Your task to perform on an android device: turn off javascript in the chrome app Image 0: 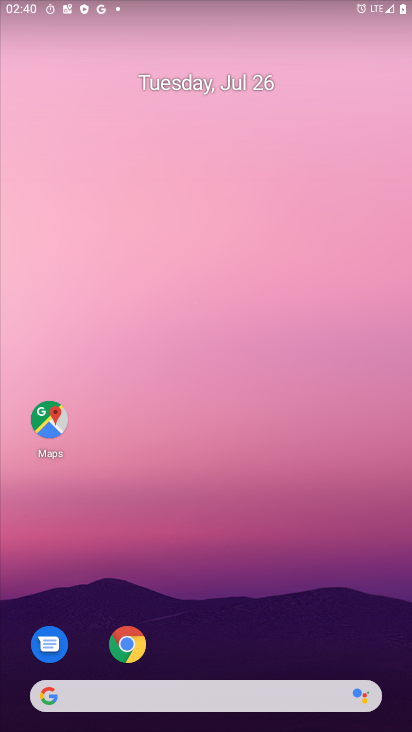
Step 0: click (125, 646)
Your task to perform on an android device: turn off javascript in the chrome app Image 1: 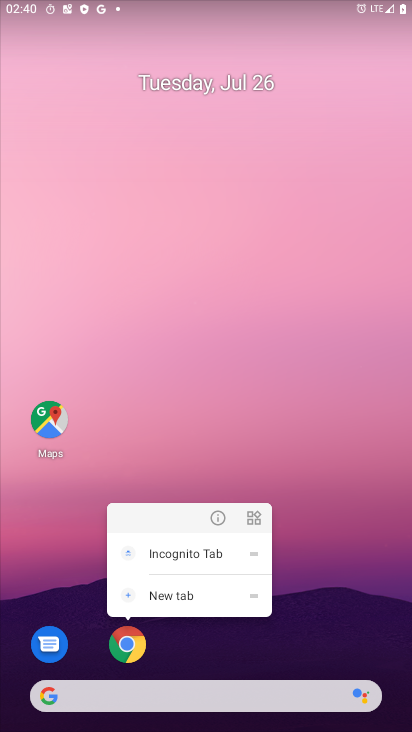
Step 1: click (125, 646)
Your task to perform on an android device: turn off javascript in the chrome app Image 2: 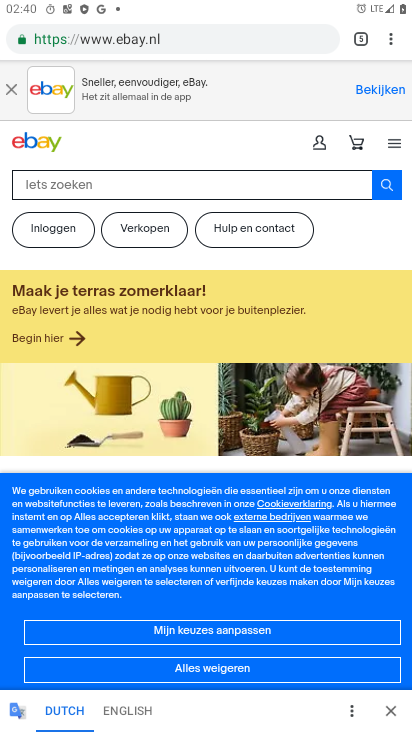
Step 2: click (390, 38)
Your task to perform on an android device: turn off javascript in the chrome app Image 3: 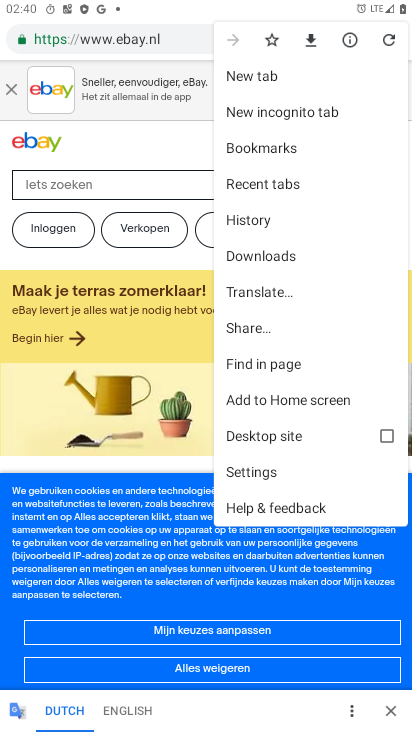
Step 3: click (261, 472)
Your task to perform on an android device: turn off javascript in the chrome app Image 4: 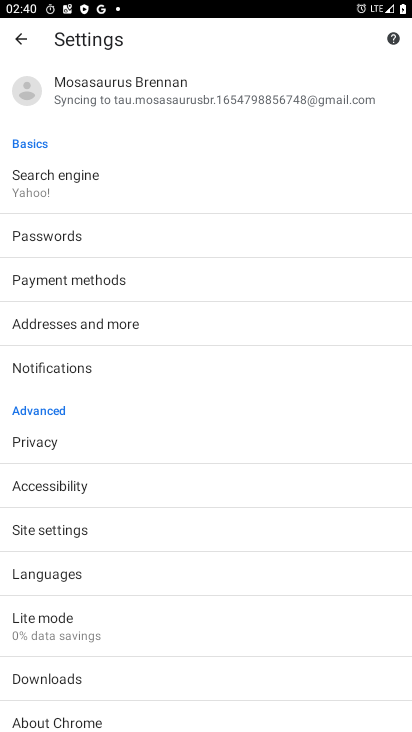
Step 4: click (61, 532)
Your task to perform on an android device: turn off javascript in the chrome app Image 5: 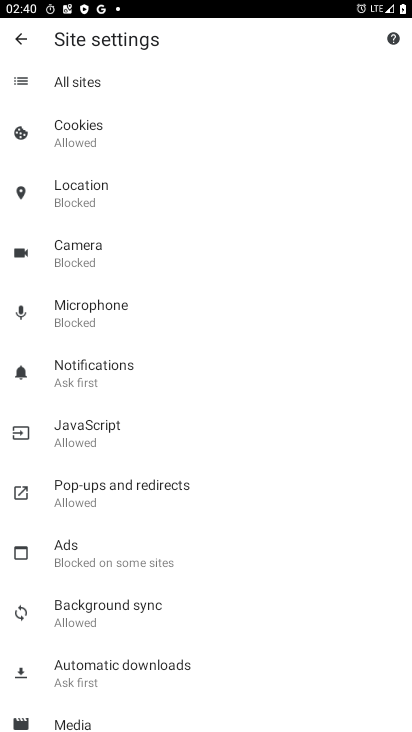
Step 5: click (74, 439)
Your task to perform on an android device: turn off javascript in the chrome app Image 6: 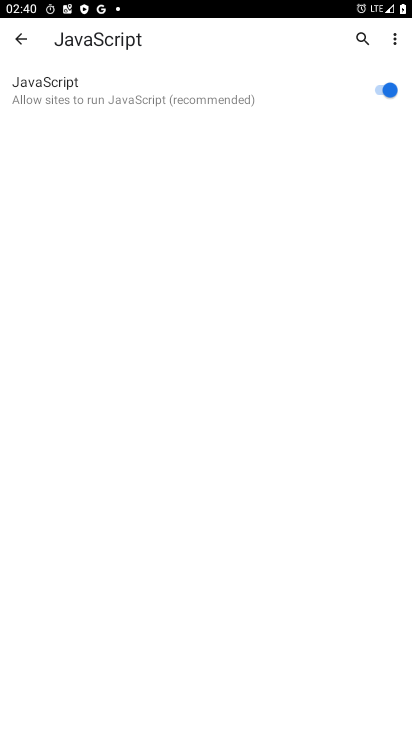
Step 6: click (390, 95)
Your task to perform on an android device: turn off javascript in the chrome app Image 7: 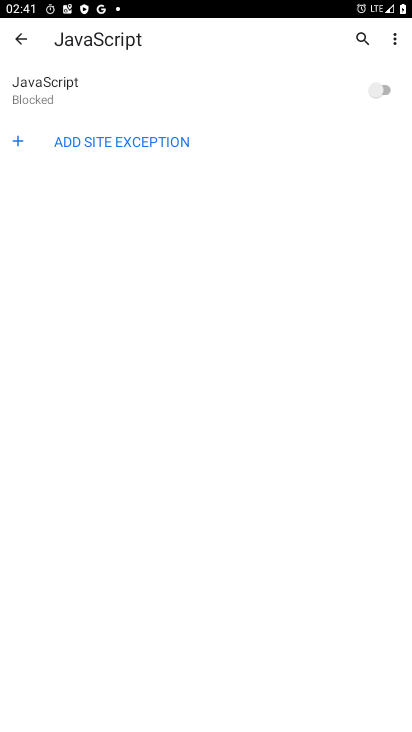
Step 7: task complete